Your task to perform on an android device: Show the shopping cart on target.com. Search for "alienware area 51" on target.com, select the first entry, and add it to the cart. Image 0: 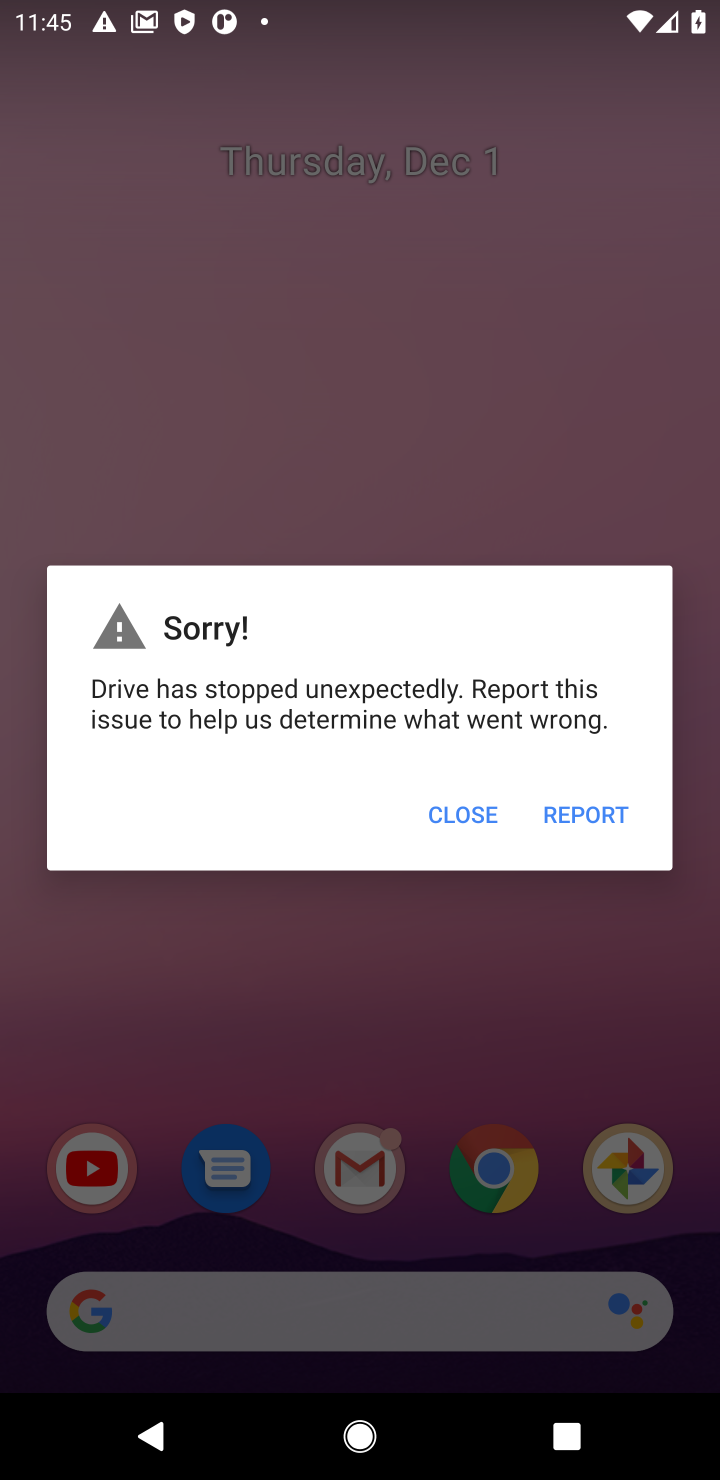
Step 0: press home button
Your task to perform on an android device: Show the shopping cart on target.com. Search for "alienware area 51" on target.com, select the first entry, and add it to the cart. Image 1: 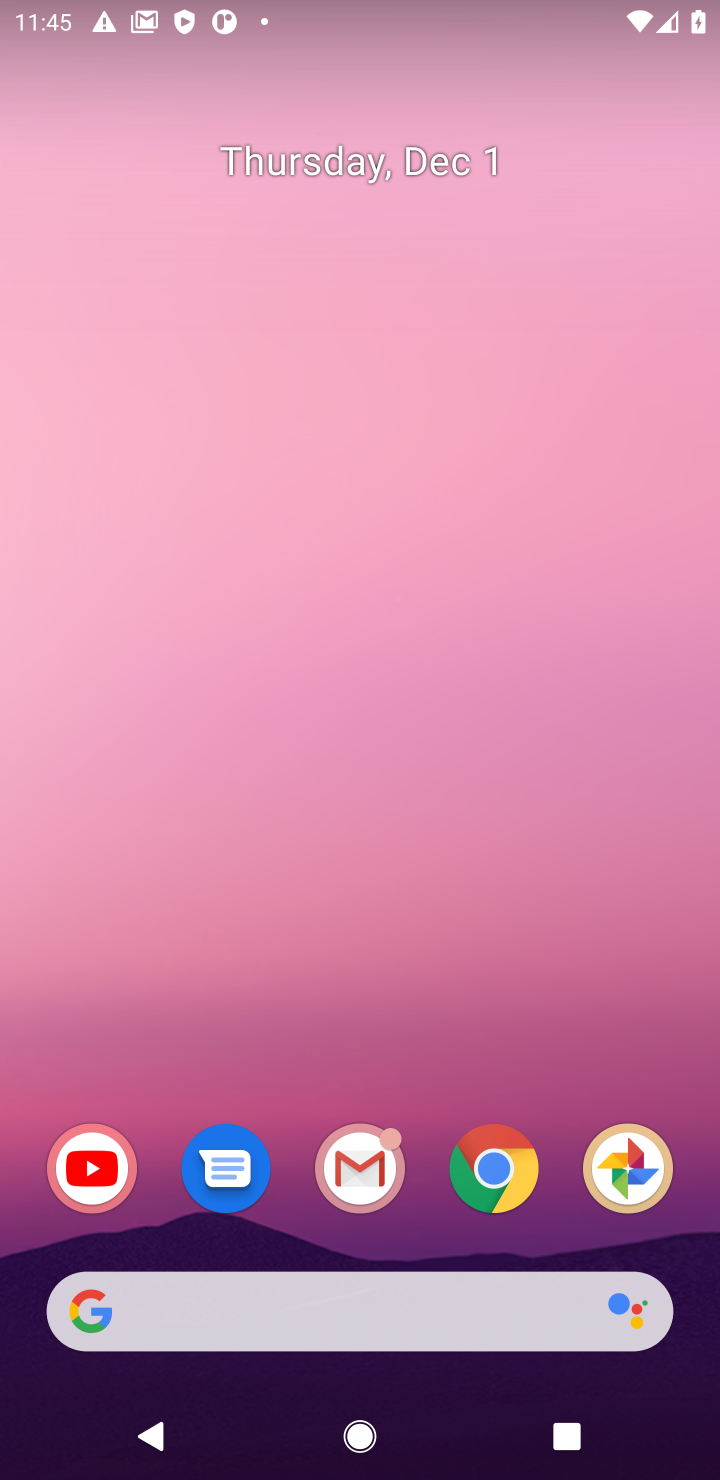
Step 1: click (483, 1165)
Your task to perform on an android device: Show the shopping cart on target.com. Search for "alienware area 51" on target.com, select the first entry, and add it to the cart. Image 2: 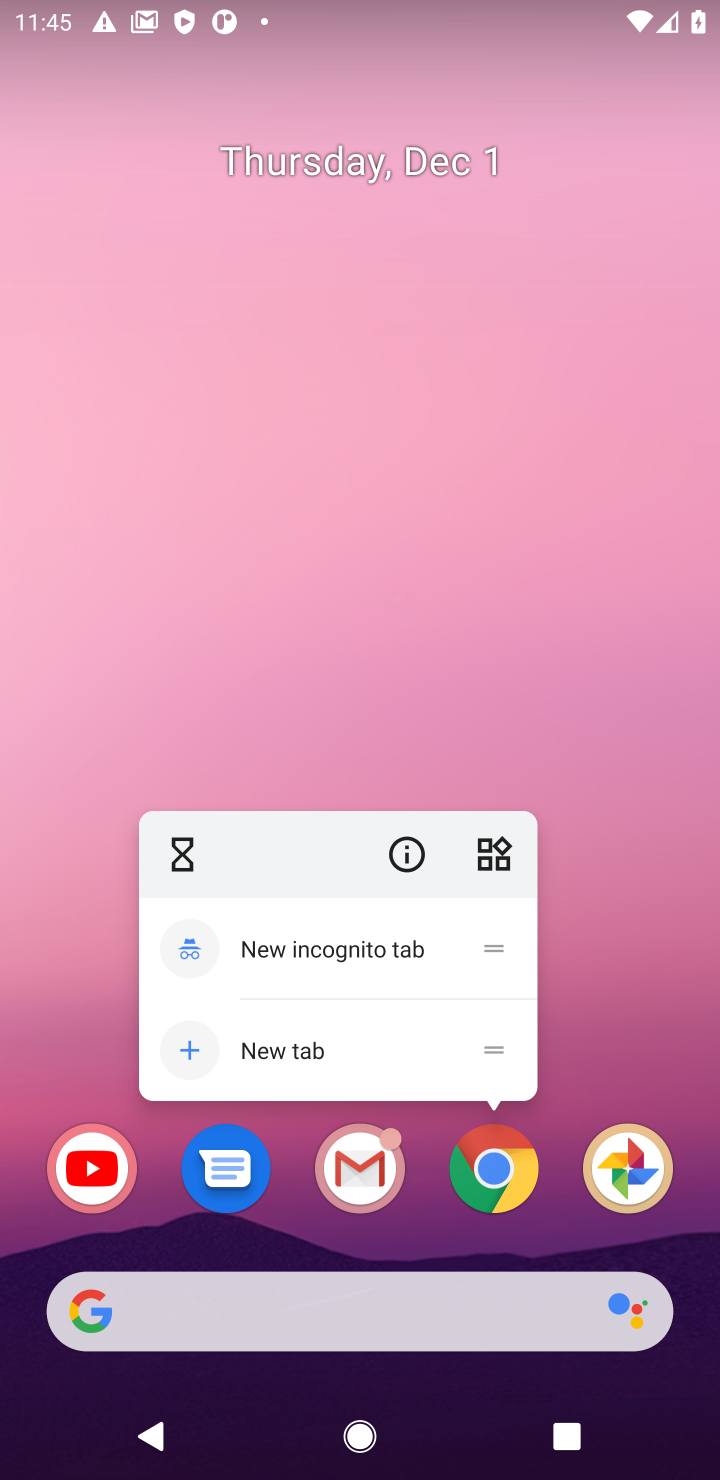
Step 2: click (483, 1165)
Your task to perform on an android device: Show the shopping cart on target.com. Search for "alienware area 51" on target.com, select the first entry, and add it to the cart. Image 3: 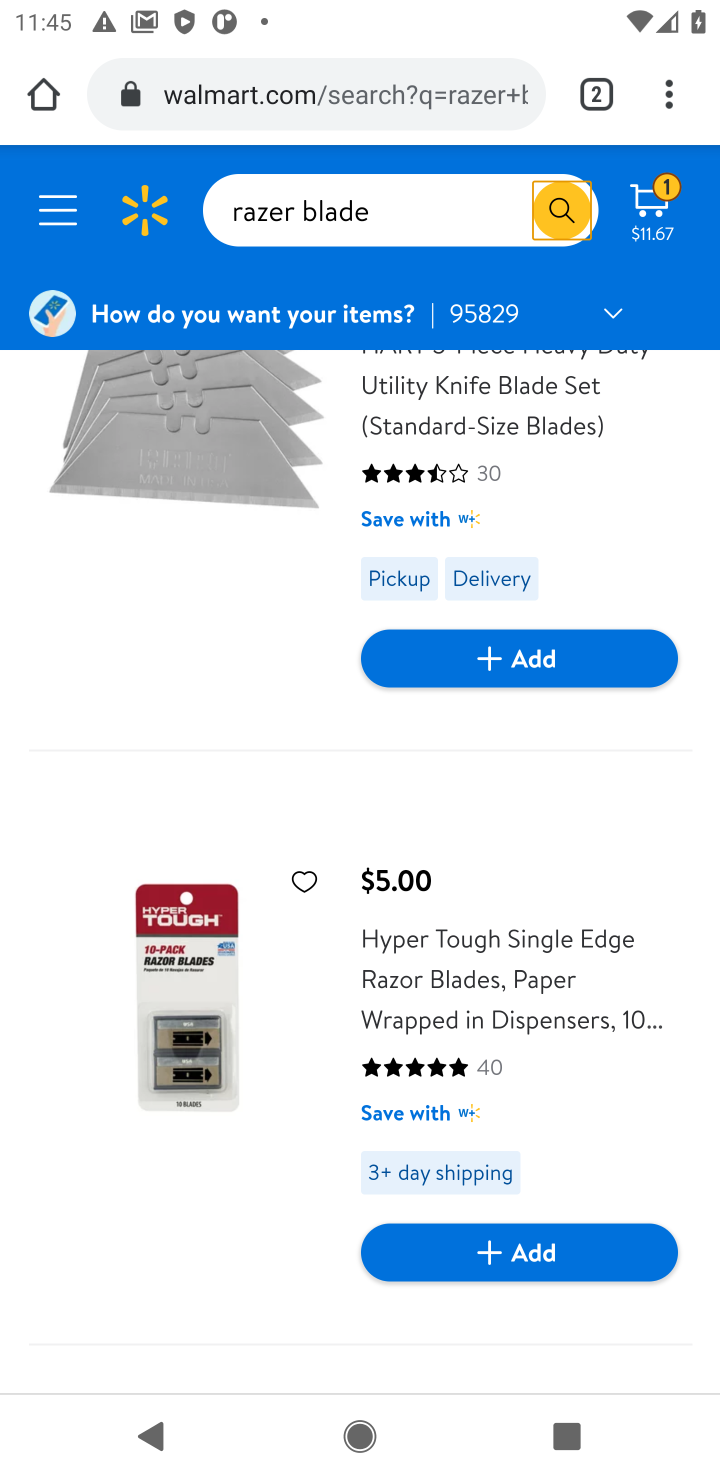
Step 3: click (309, 90)
Your task to perform on an android device: Show the shopping cart on target.com. Search for "alienware area 51" on target.com, select the first entry, and add it to the cart. Image 4: 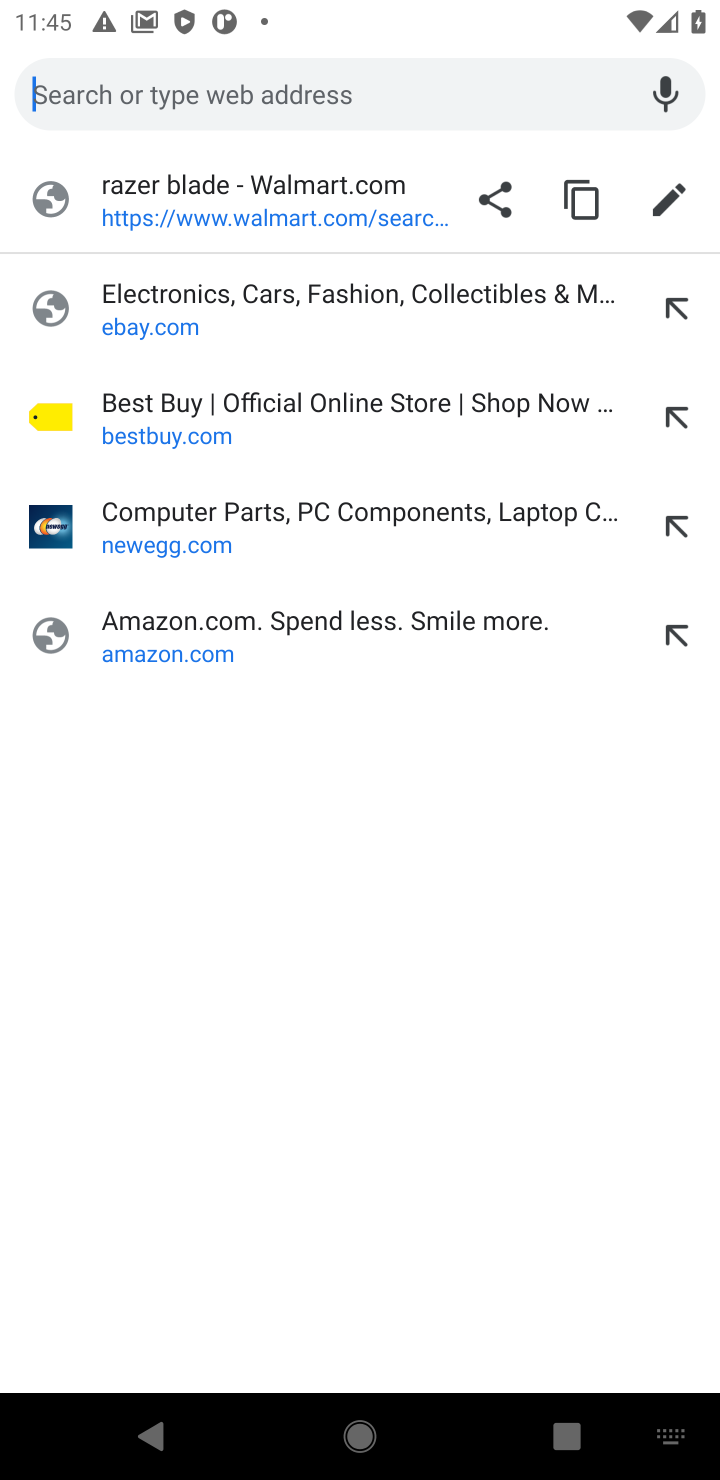
Step 4: type "target.com"
Your task to perform on an android device: Show the shopping cart on target.com. Search for "alienware area 51" on target.com, select the first entry, and add it to the cart. Image 5: 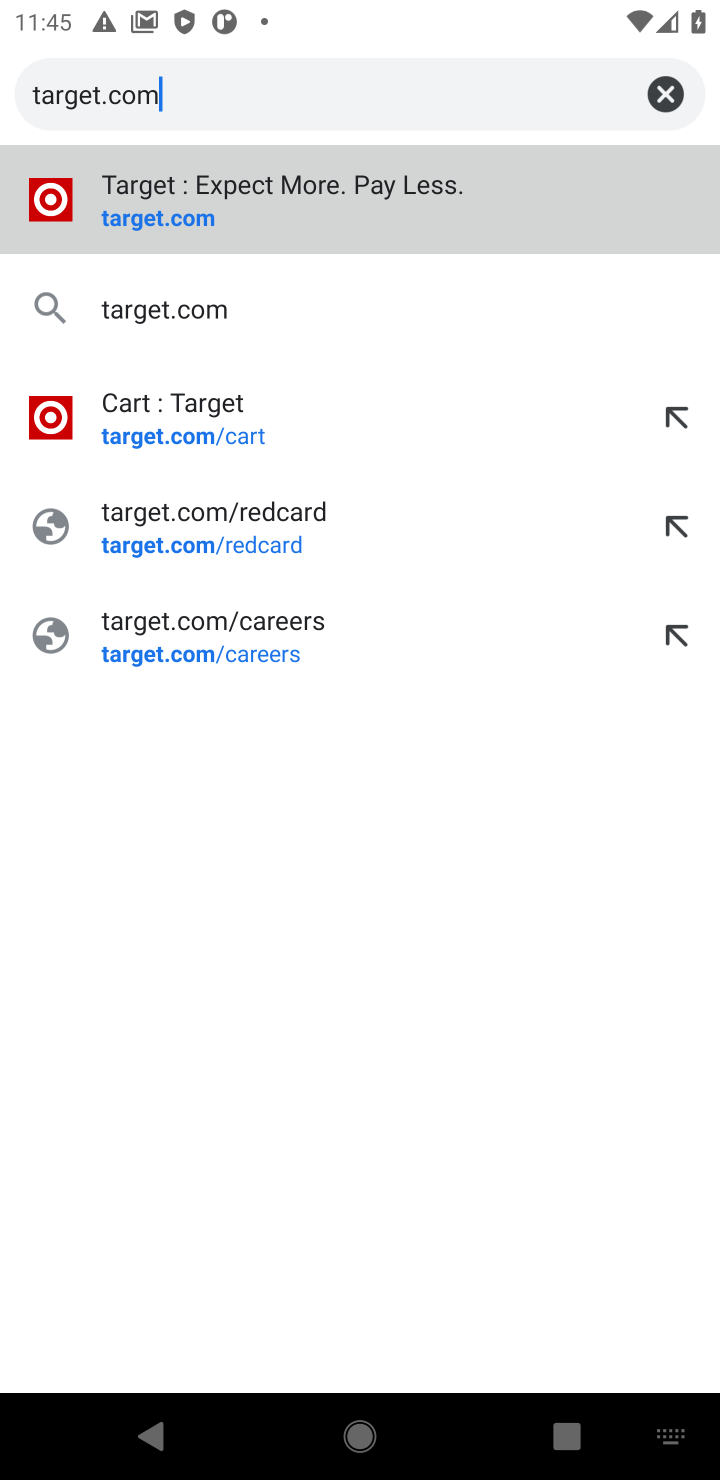
Step 5: click (150, 225)
Your task to perform on an android device: Show the shopping cart on target.com. Search for "alienware area 51" on target.com, select the first entry, and add it to the cart. Image 6: 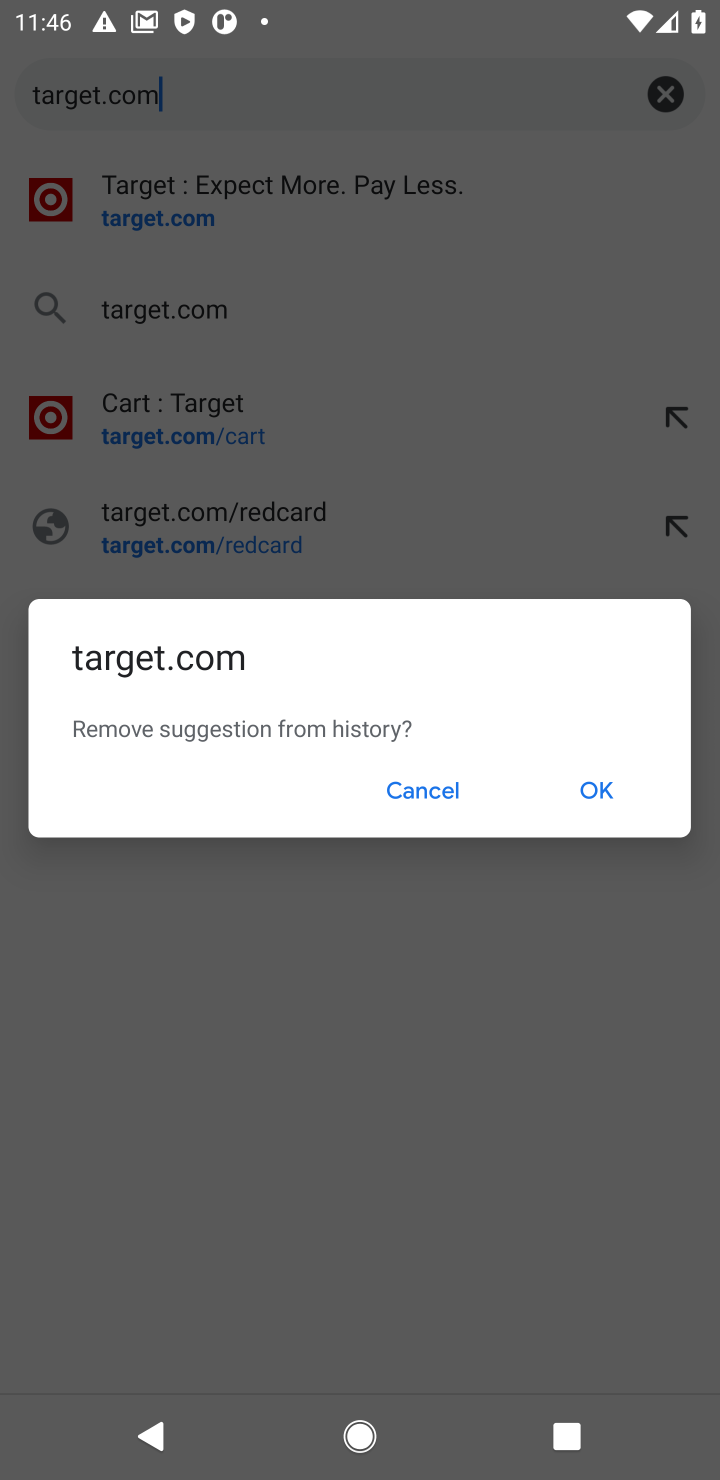
Step 6: click (428, 791)
Your task to perform on an android device: Show the shopping cart on target.com. Search for "alienware area 51" on target.com, select the first entry, and add it to the cart. Image 7: 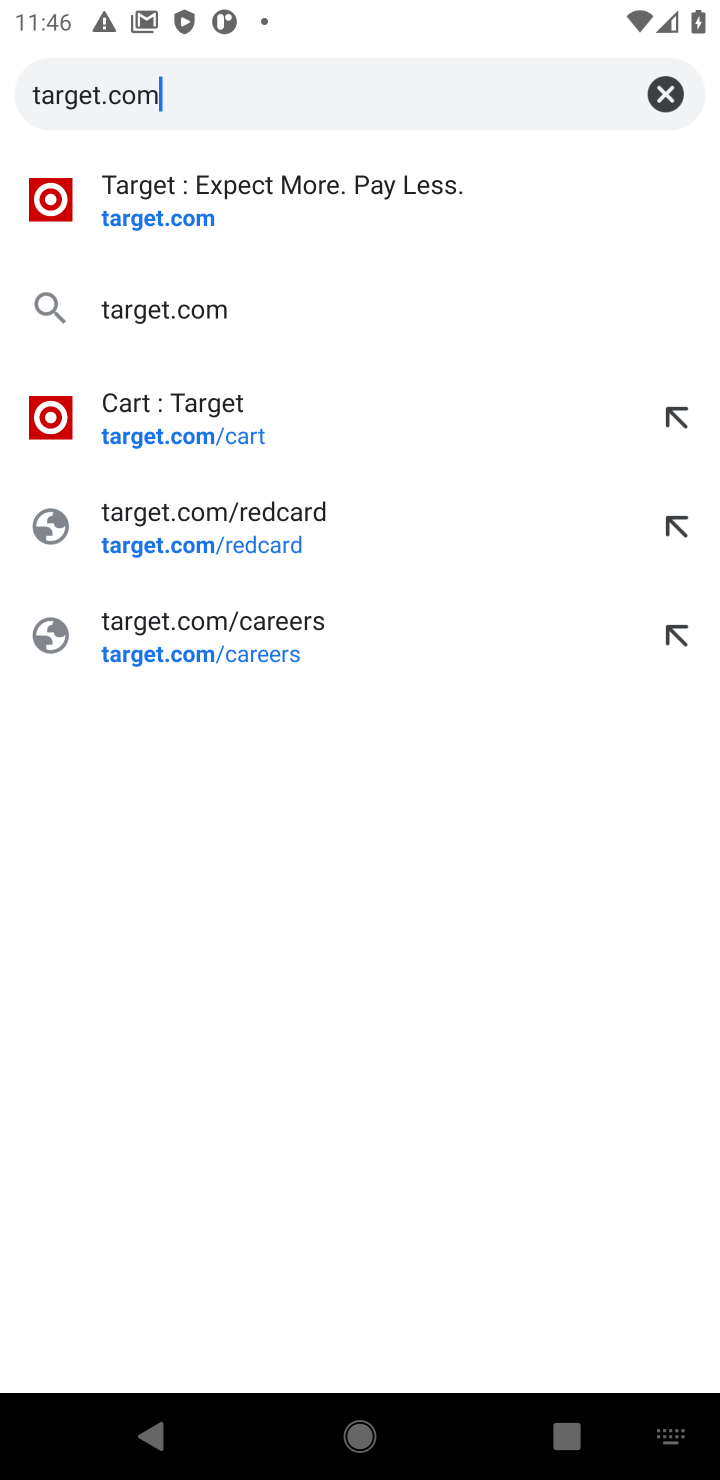
Step 7: click (146, 222)
Your task to perform on an android device: Show the shopping cart on target.com. Search for "alienware area 51" on target.com, select the first entry, and add it to the cart. Image 8: 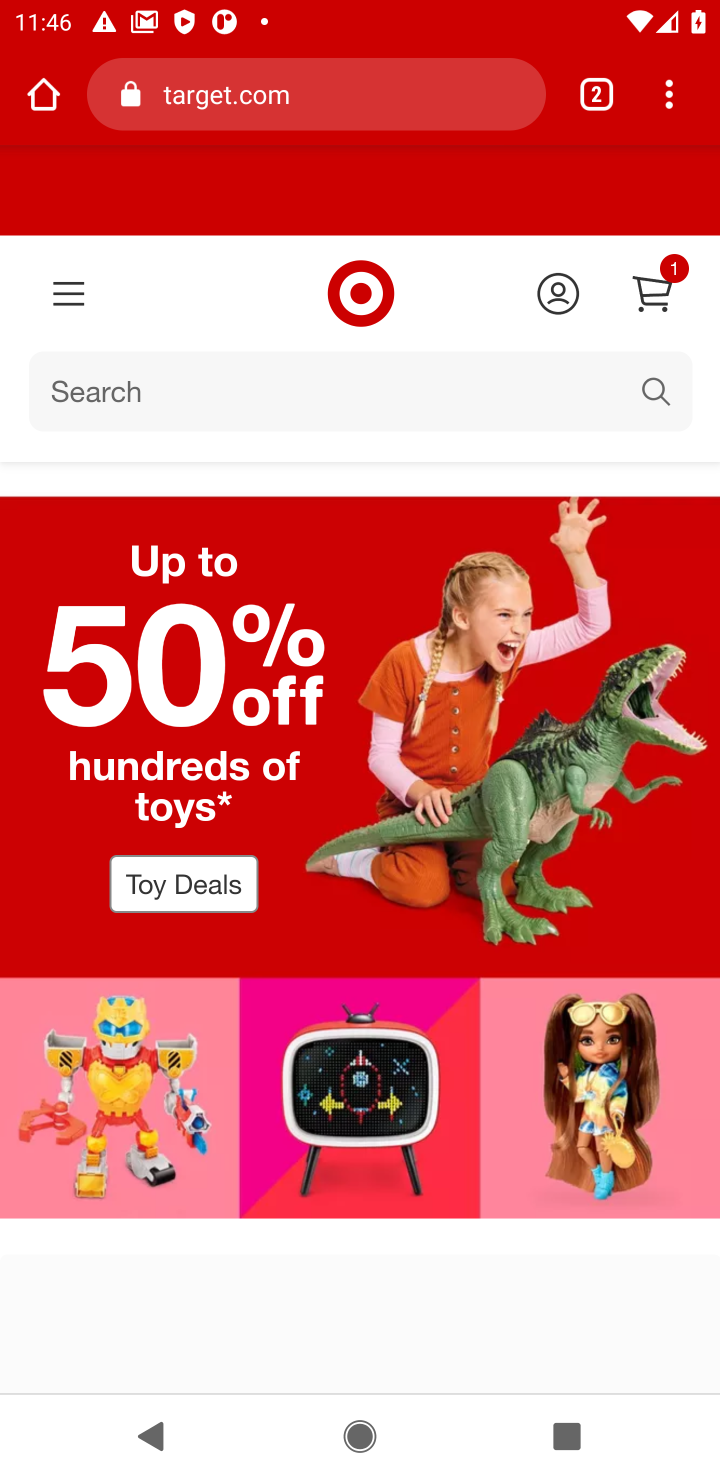
Step 8: click (656, 304)
Your task to perform on an android device: Show the shopping cart on target.com. Search for "alienware area 51" on target.com, select the first entry, and add it to the cart. Image 9: 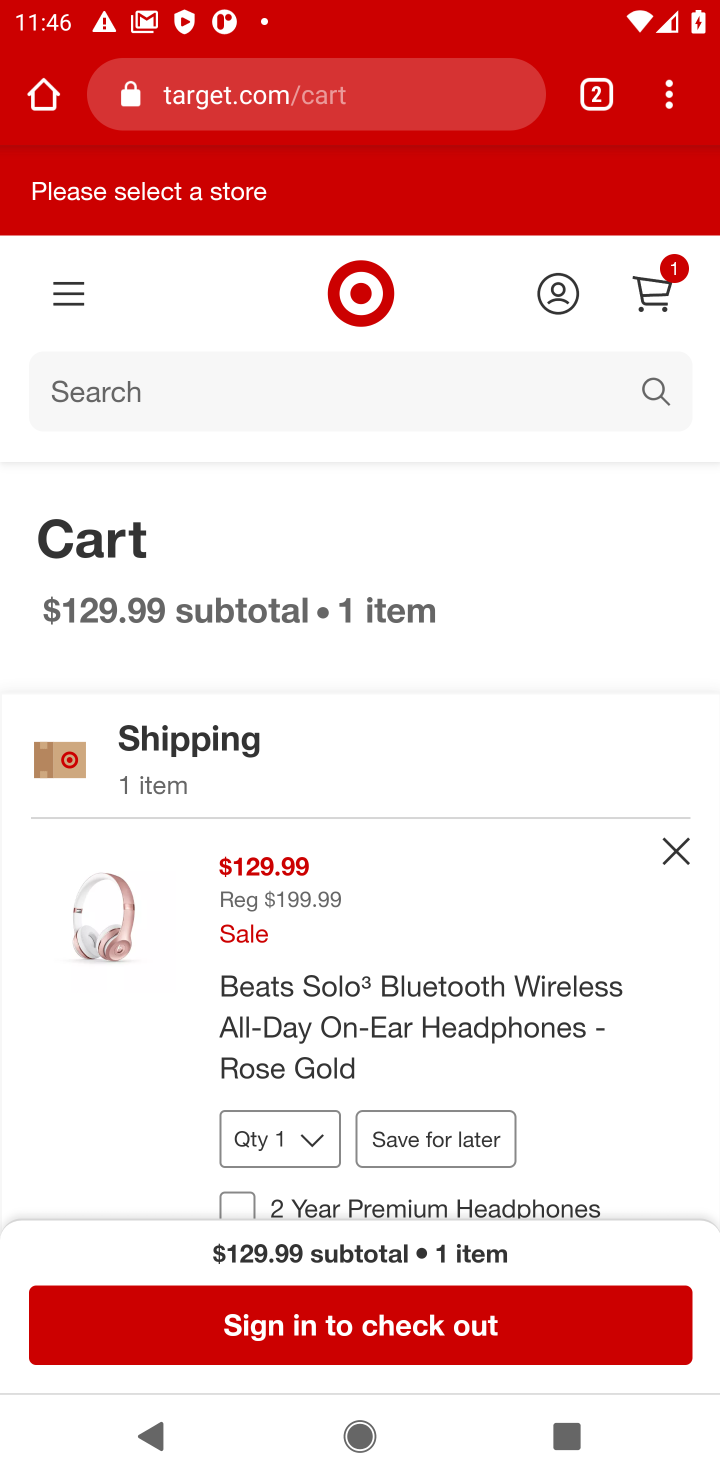
Step 9: click (127, 391)
Your task to perform on an android device: Show the shopping cart on target.com. Search for "alienware area 51" on target.com, select the first entry, and add it to the cart. Image 10: 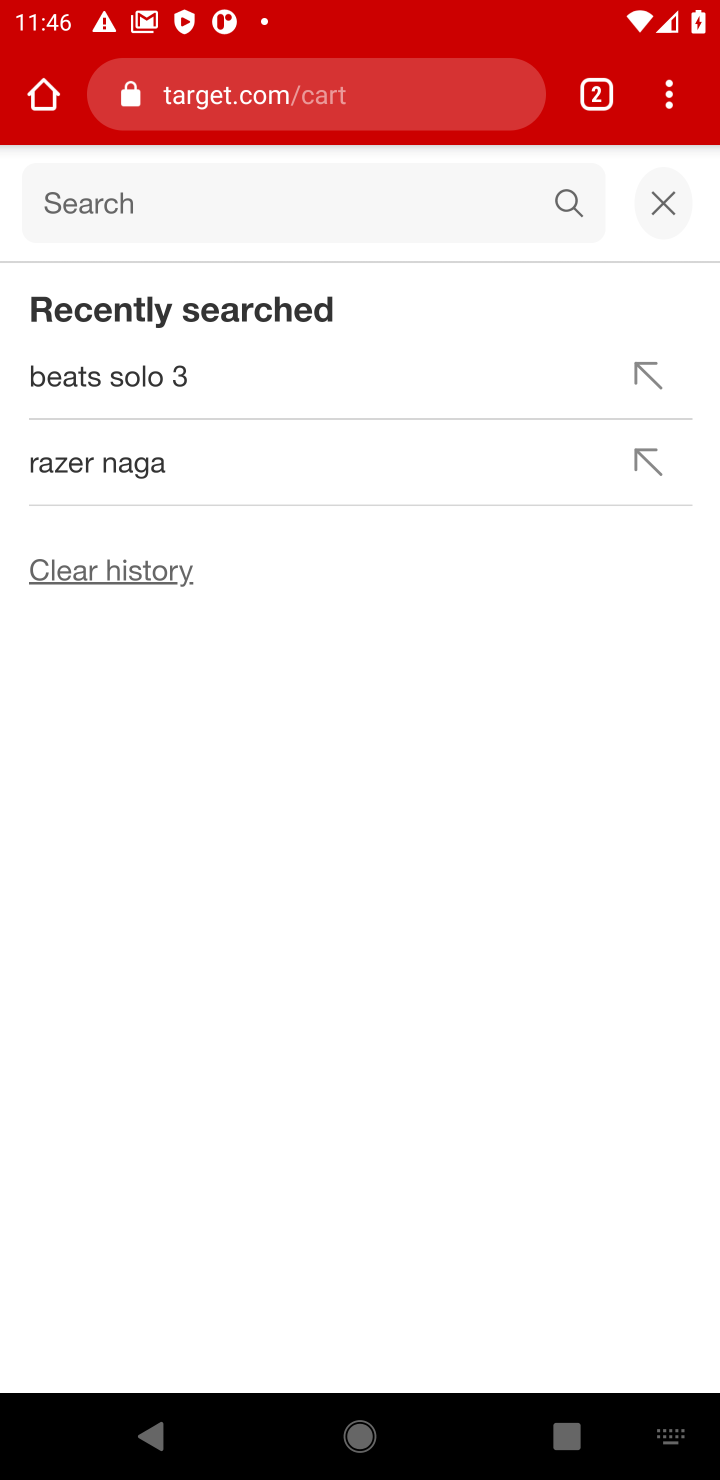
Step 10: type "alienware area 51"
Your task to perform on an android device: Show the shopping cart on target.com. Search for "alienware area 51" on target.com, select the first entry, and add it to the cart. Image 11: 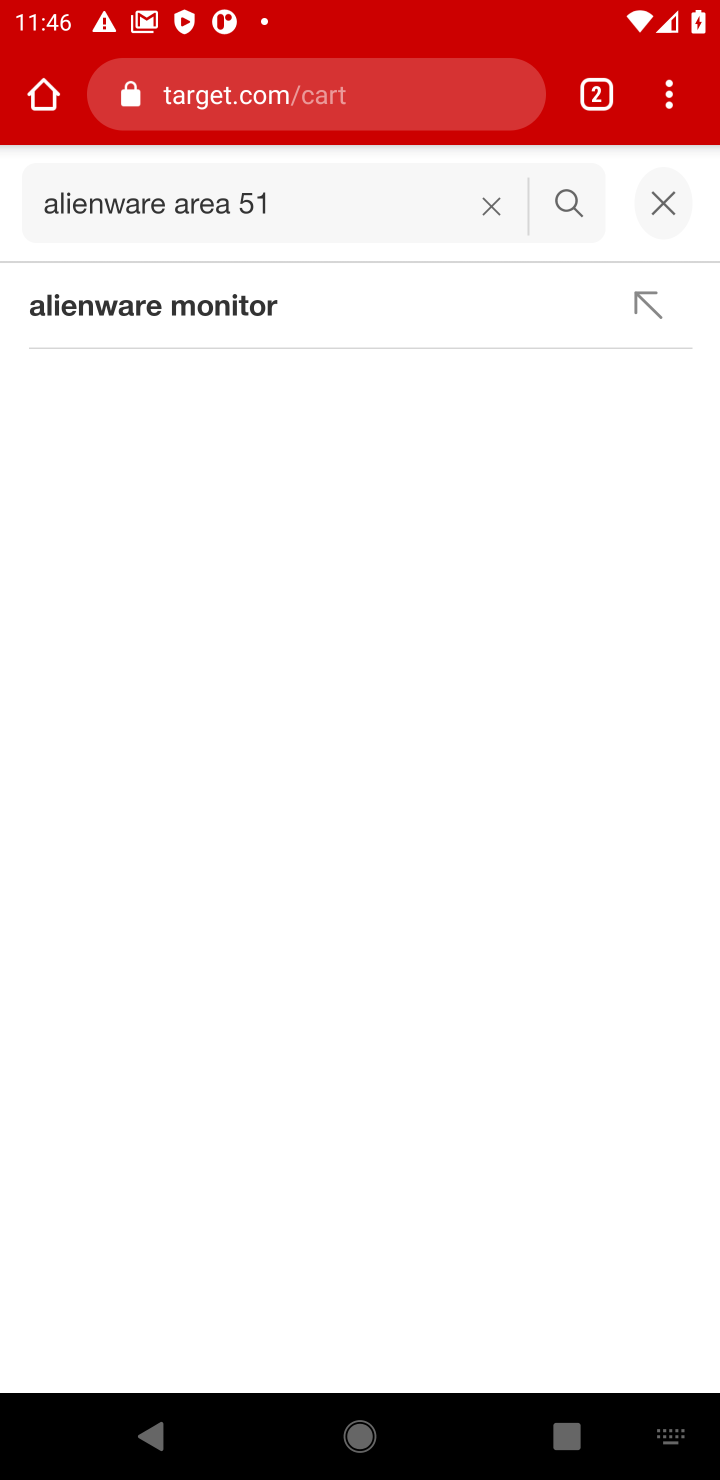
Step 11: click (570, 207)
Your task to perform on an android device: Show the shopping cart on target.com. Search for "alienware area 51" on target.com, select the first entry, and add it to the cart. Image 12: 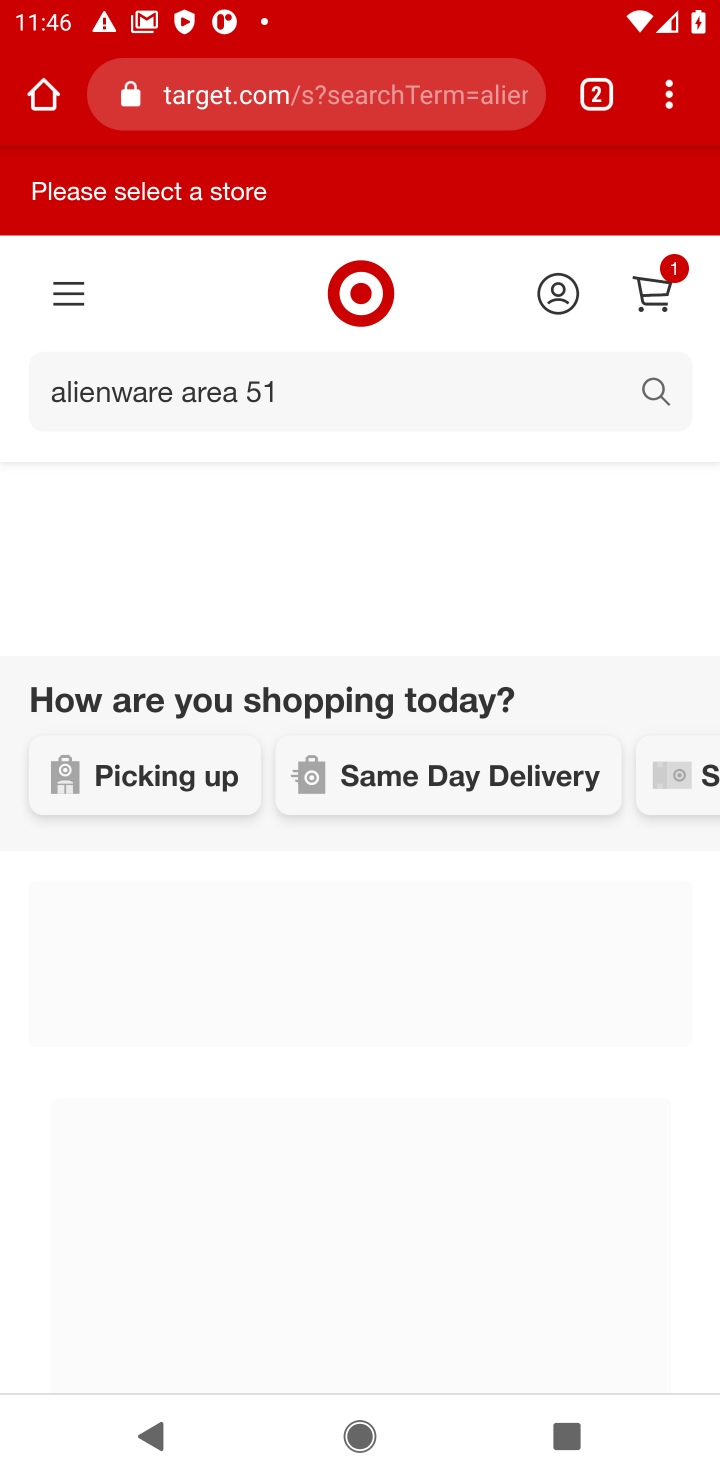
Step 12: task complete